Your task to perform on an android device: search for starred emails in the gmail app Image 0: 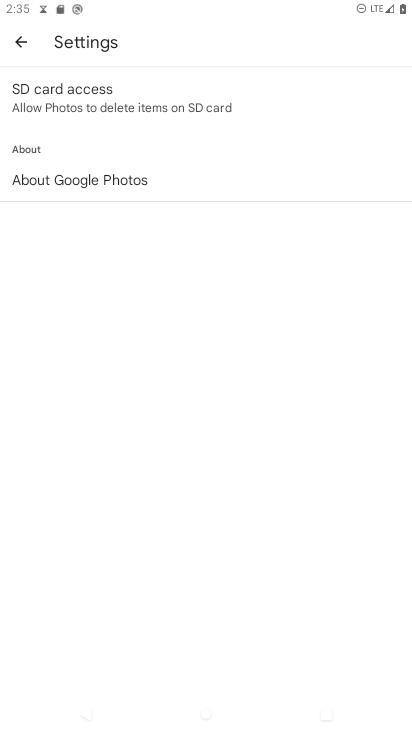
Step 0: press home button
Your task to perform on an android device: search for starred emails in the gmail app Image 1: 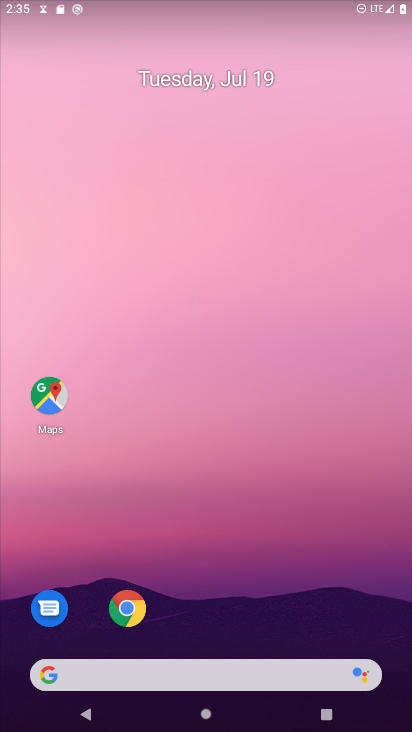
Step 1: drag from (260, 675) to (378, 59)
Your task to perform on an android device: search for starred emails in the gmail app Image 2: 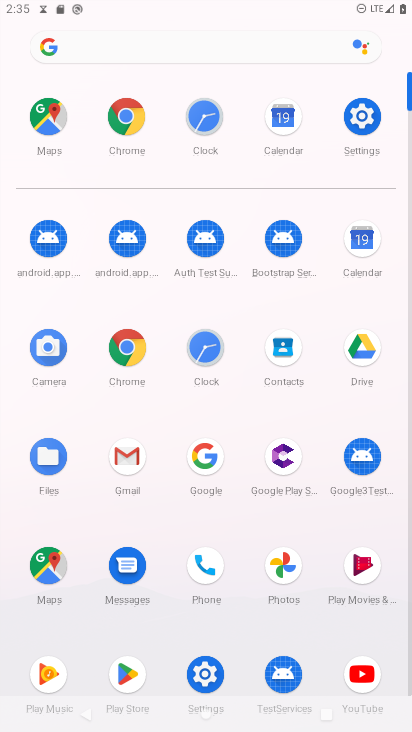
Step 2: click (127, 465)
Your task to perform on an android device: search for starred emails in the gmail app Image 3: 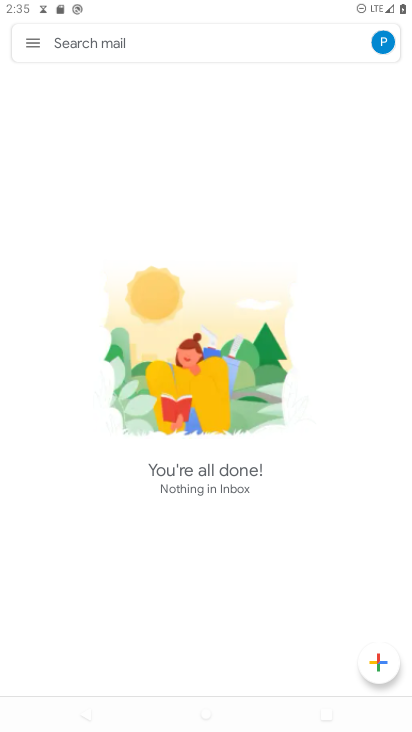
Step 3: click (28, 44)
Your task to perform on an android device: search for starred emails in the gmail app Image 4: 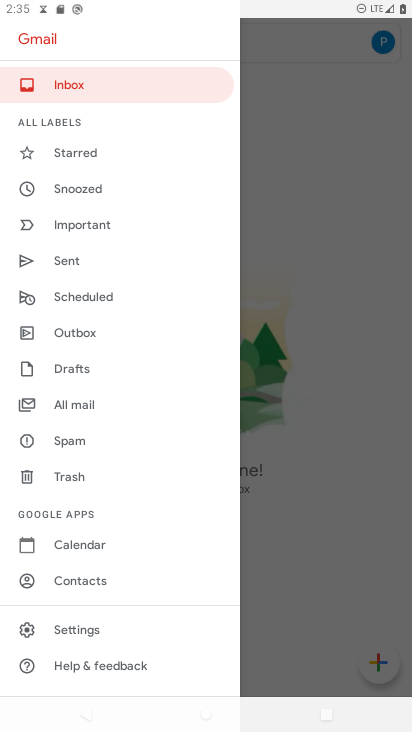
Step 4: click (90, 152)
Your task to perform on an android device: search for starred emails in the gmail app Image 5: 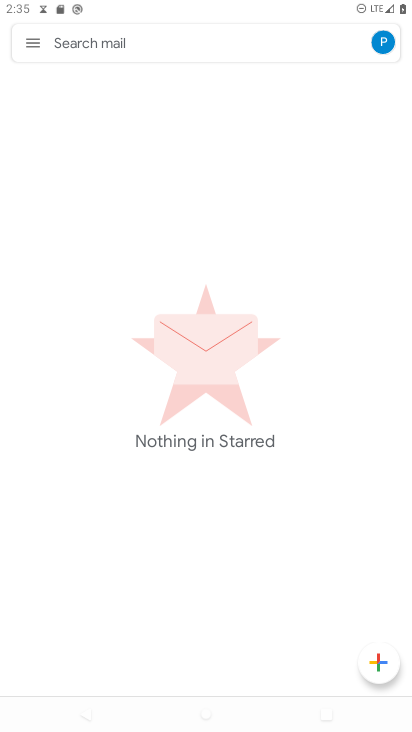
Step 5: task complete